Your task to perform on an android device: Turn off the flashlight Image 0: 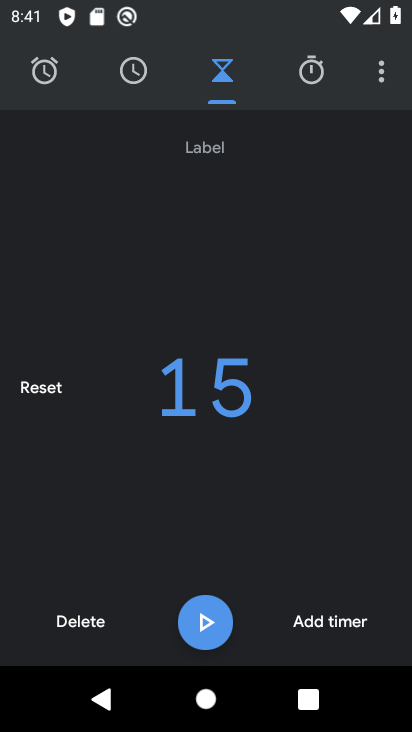
Step 0: press home button
Your task to perform on an android device: Turn off the flashlight Image 1: 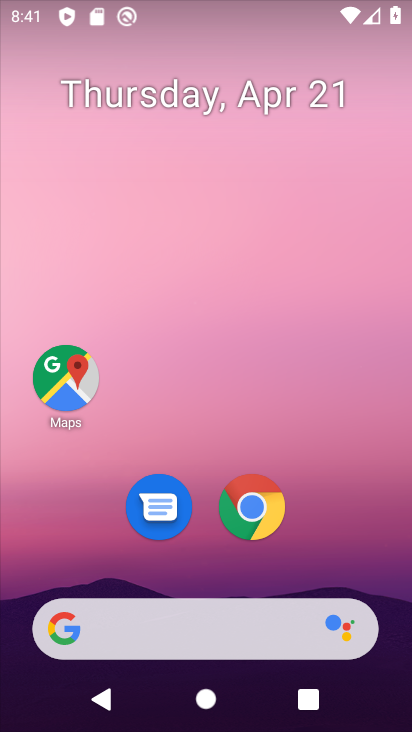
Step 1: drag from (382, 561) to (384, 81)
Your task to perform on an android device: Turn off the flashlight Image 2: 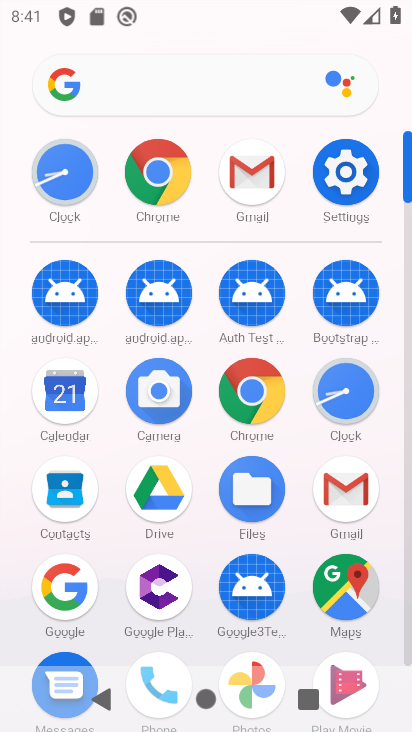
Step 2: click (350, 172)
Your task to perform on an android device: Turn off the flashlight Image 3: 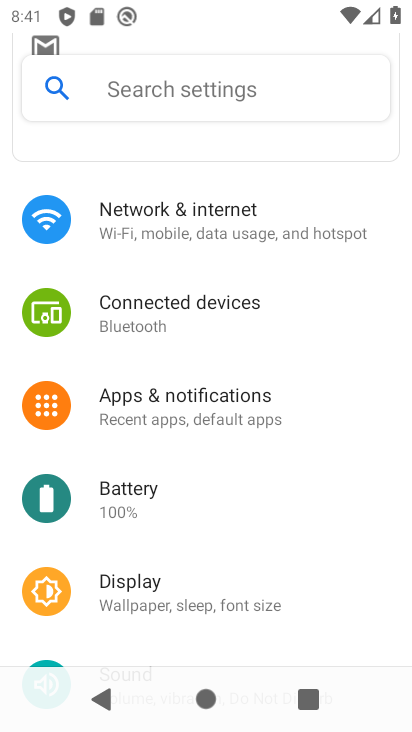
Step 3: click (199, 88)
Your task to perform on an android device: Turn off the flashlight Image 4: 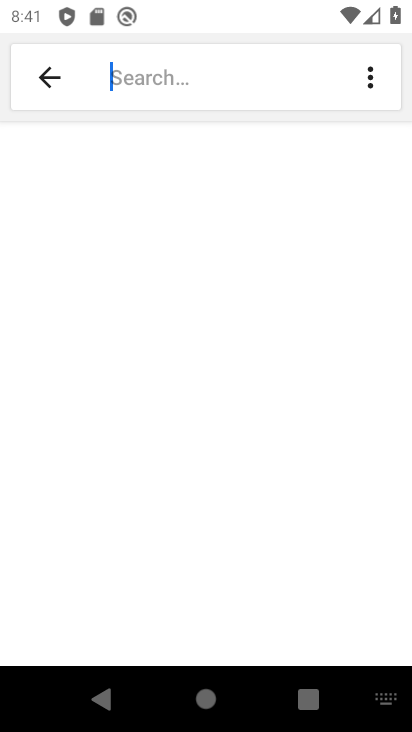
Step 4: type "flashlight"
Your task to perform on an android device: Turn off the flashlight Image 5: 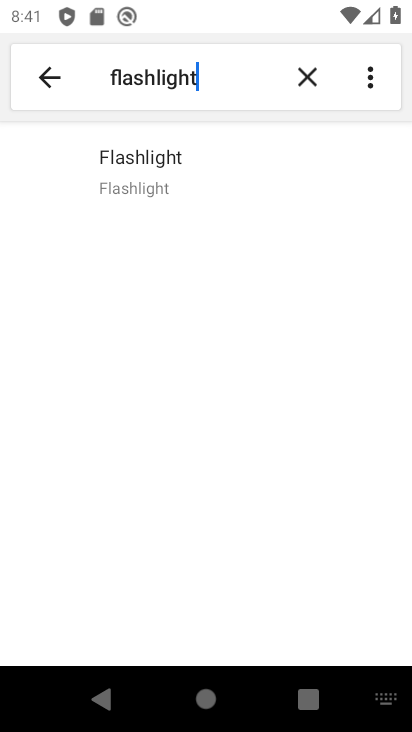
Step 5: click (160, 143)
Your task to perform on an android device: Turn off the flashlight Image 6: 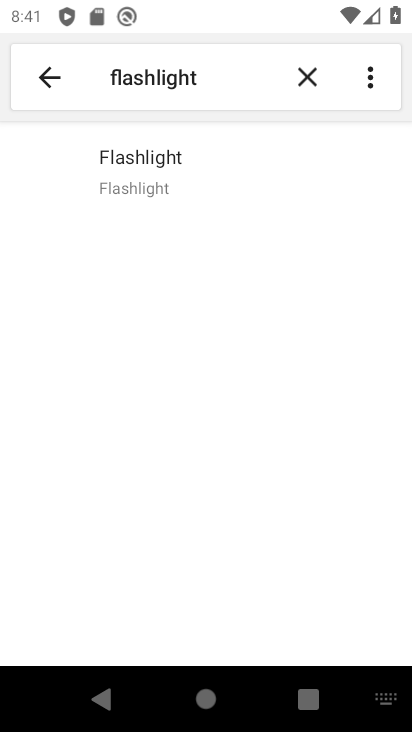
Step 6: click (155, 157)
Your task to perform on an android device: Turn off the flashlight Image 7: 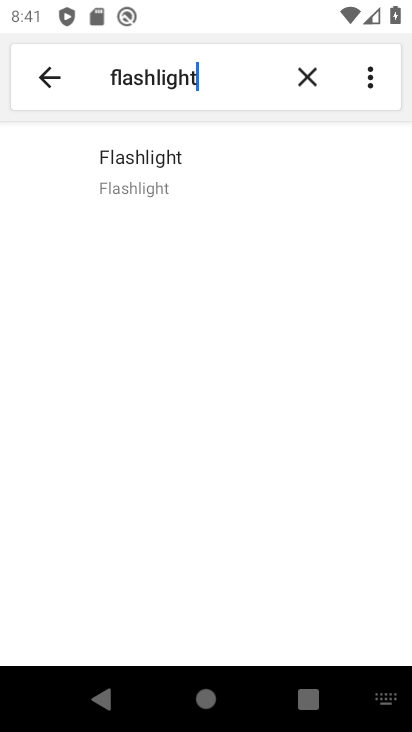
Step 7: task complete